Your task to perform on an android device: Add panasonic triple a to the cart on bestbuy.com Image 0: 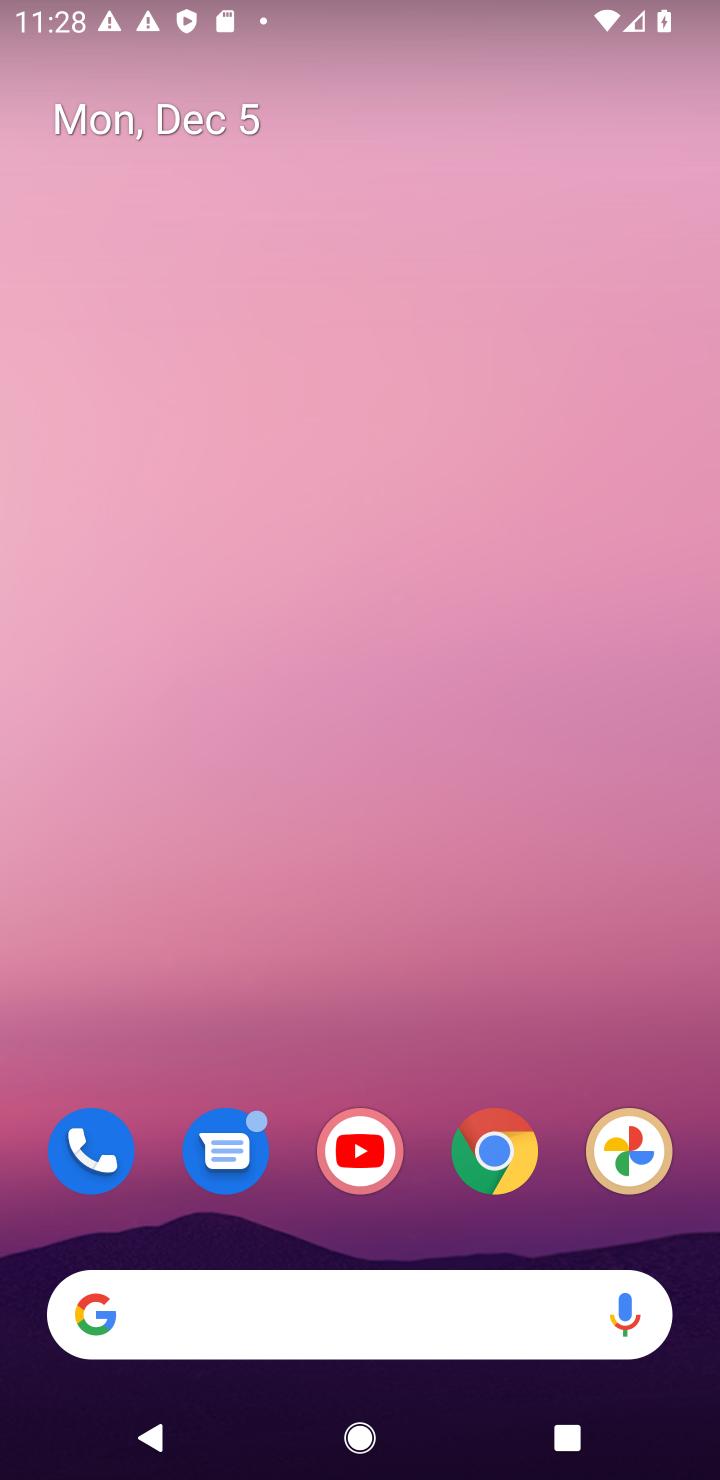
Step 0: click (478, 1163)
Your task to perform on an android device: Add panasonic triple a to the cart on bestbuy.com Image 1: 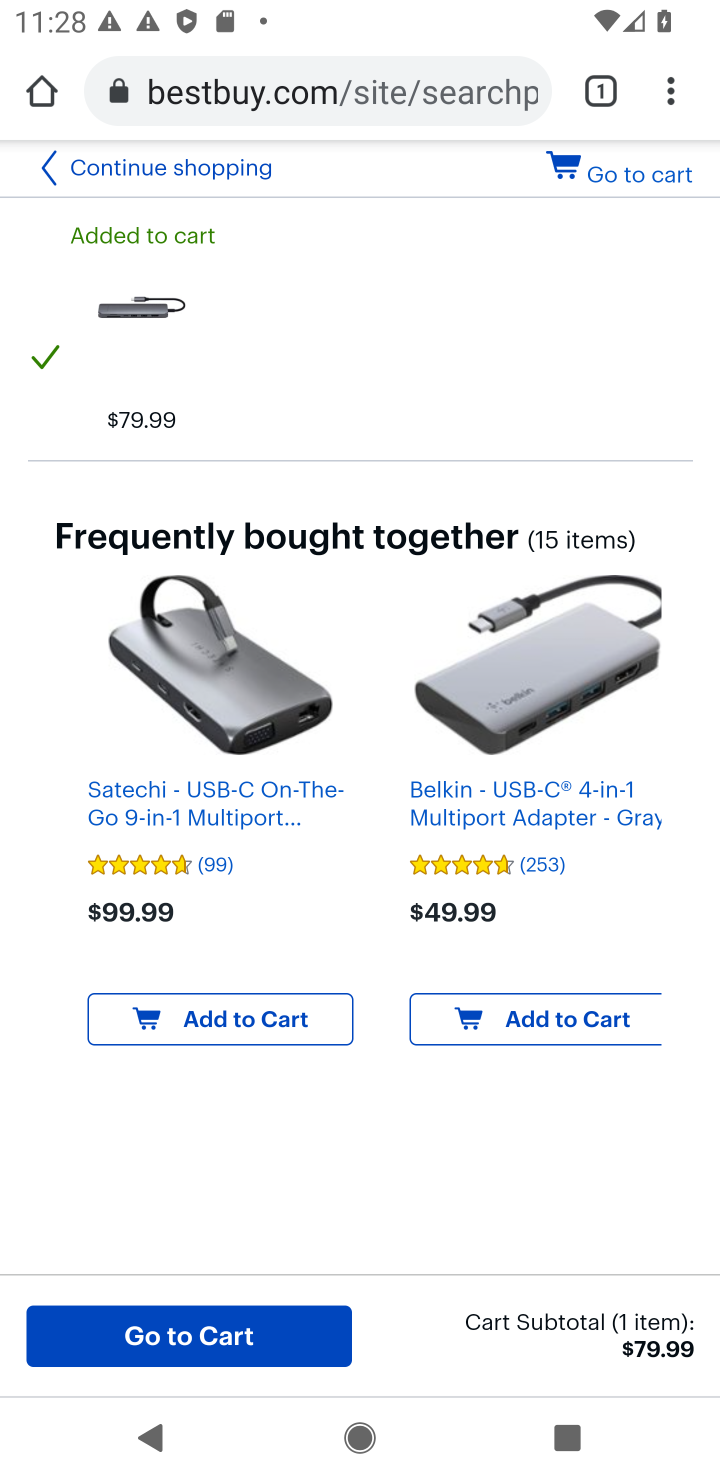
Step 1: drag from (367, 465) to (338, 762)
Your task to perform on an android device: Add panasonic triple a to the cart on bestbuy.com Image 2: 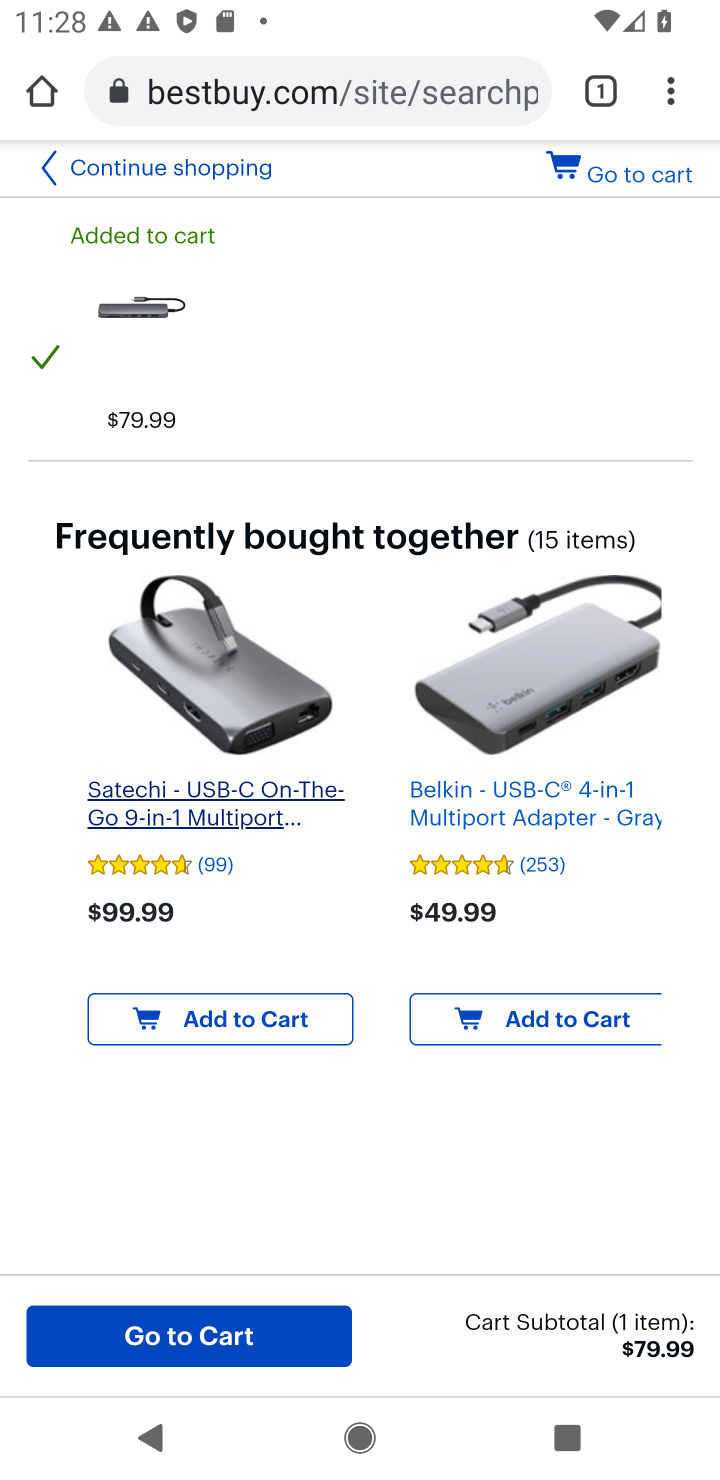
Step 2: press back button
Your task to perform on an android device: Add panasonic triple a to the cart on bestbuy.com Image 3: 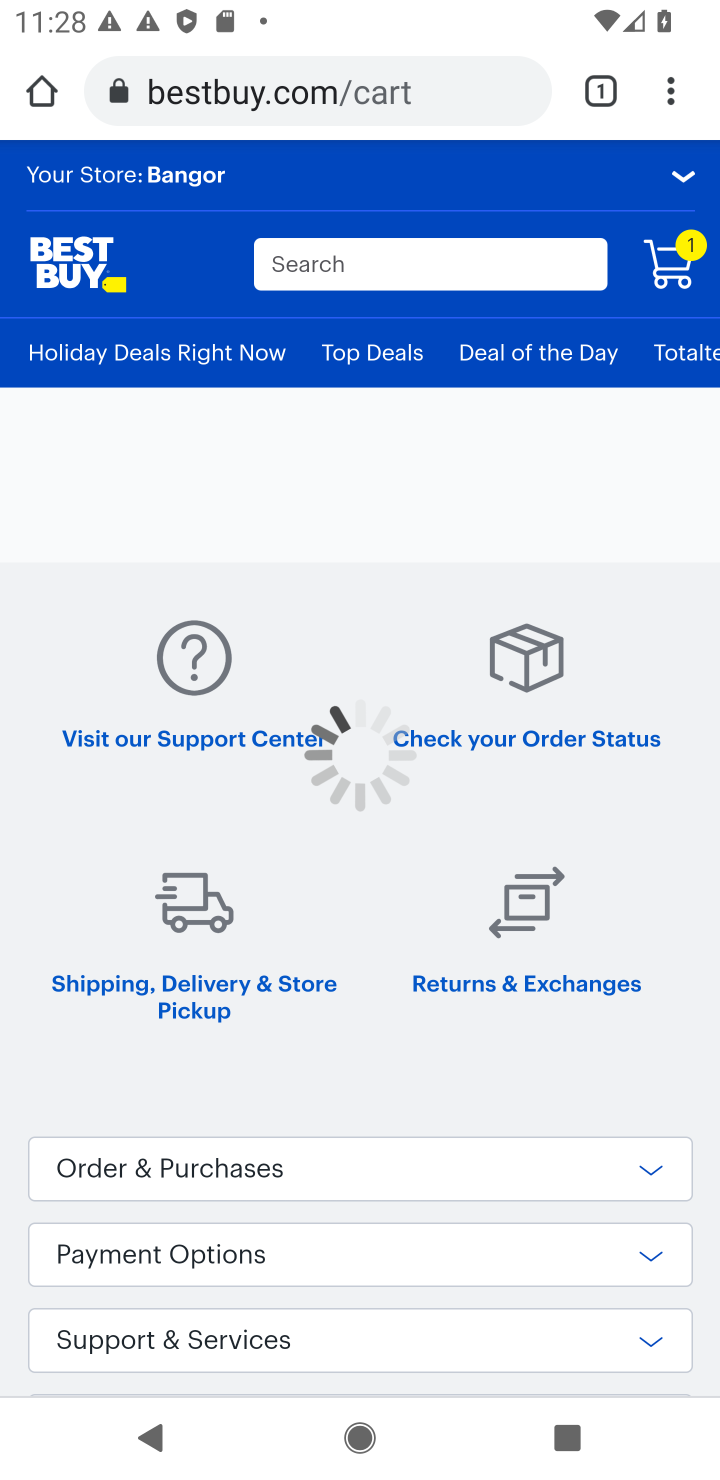
Step 3: click (304, 278)
Your task to perform on an android device: Add panasonic triple a to the cart on bestbuy.com Image 4: 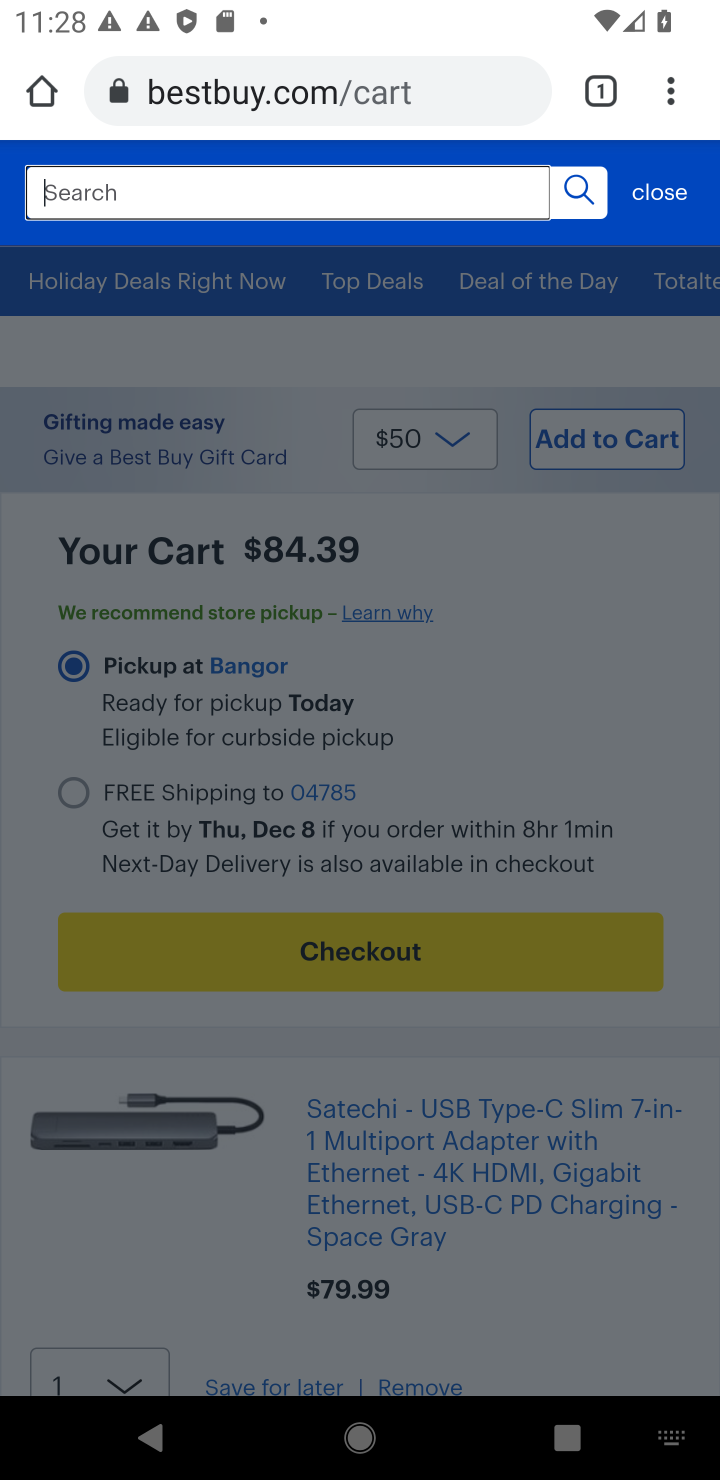
Step 4: type "panasonic triple a"
Your task to perform on an android device: Add panasonic triple a to the cart on bestbuy.com Image 5: 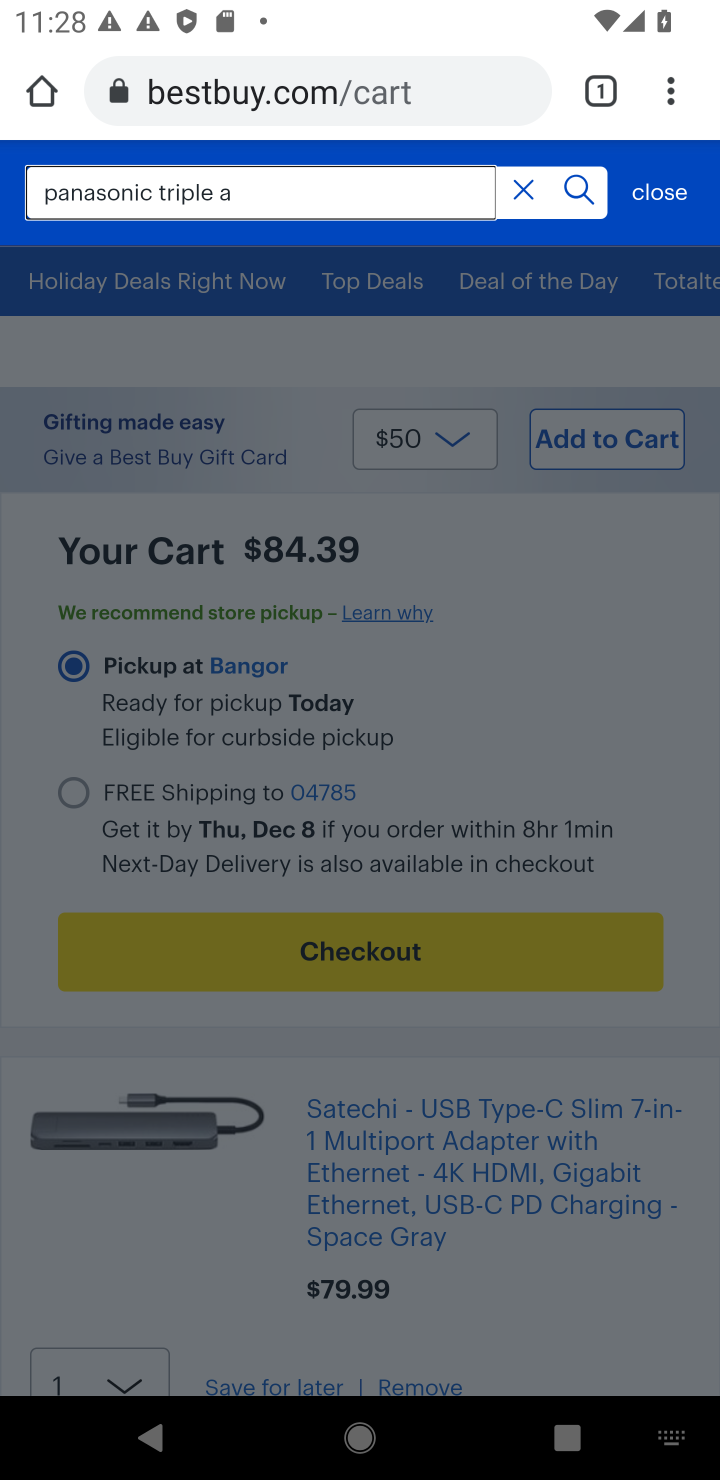
Step 5: click (570, 196)
Your task to perform on an android device: Add panasonic triple a to the cart on bestbuy.com Image 6: 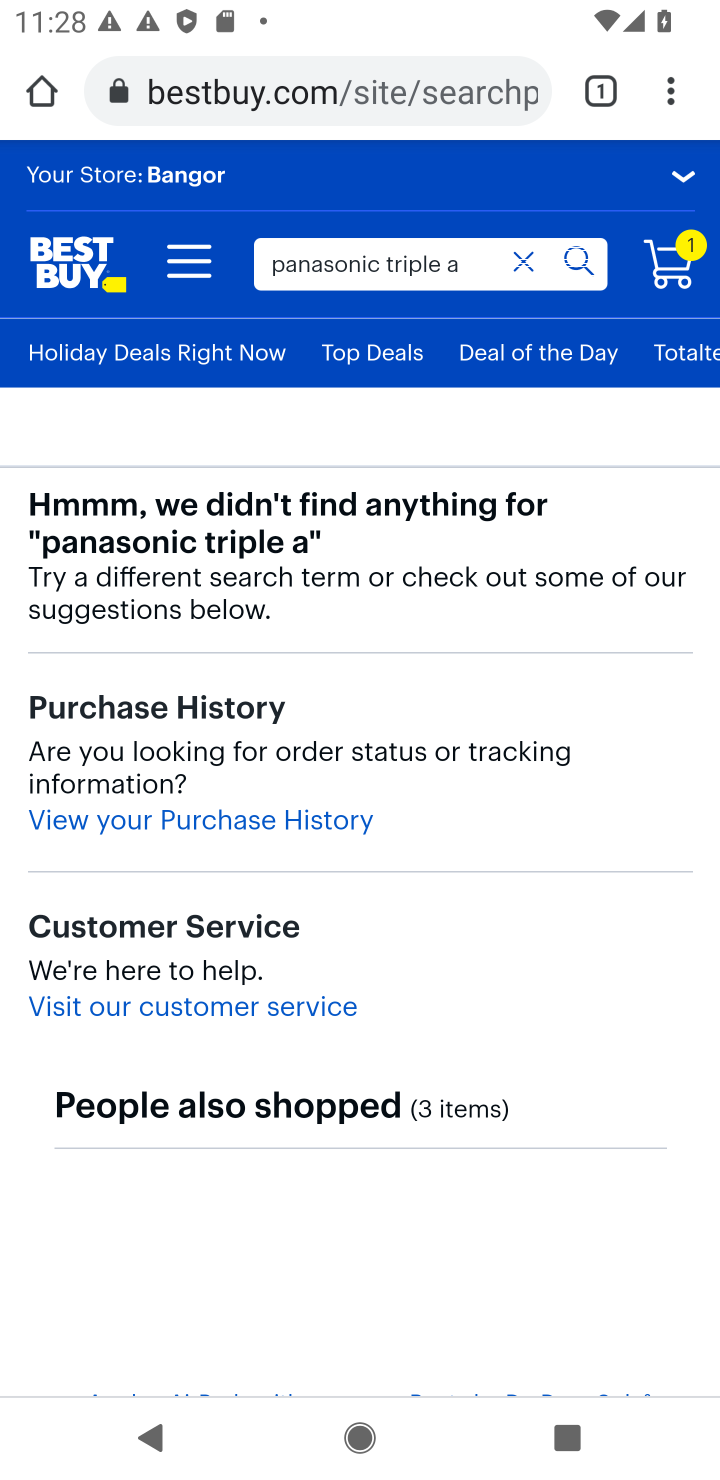
Step 6: task complete